Your task to perform on an android device: Search for vegetarian restaurants on Maps Image 0: 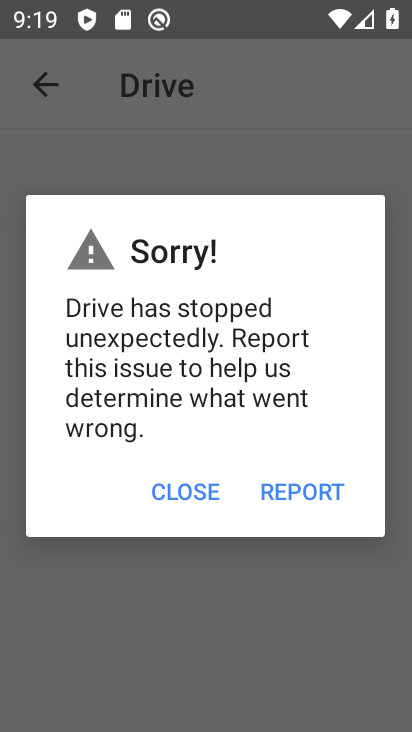
Step 0: press home button
Your task to perform on an android device: Search for vegetarian restaurants on Maps Image 1: 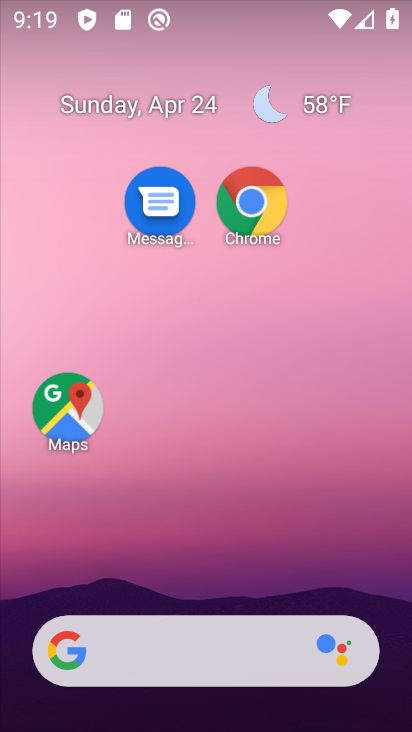
Step 1: drag from (199, 708) to (191, 196)
Your task to perform on an android device: Search for vegetarian restaurants on Maps Image 2: 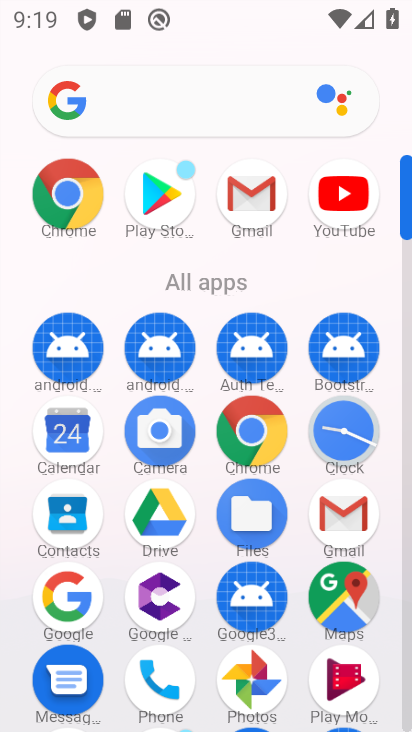
Step 2: click (345, 594)
Your task to perform on an android device: Search for vegetarian restaurants on Maps Image 3: 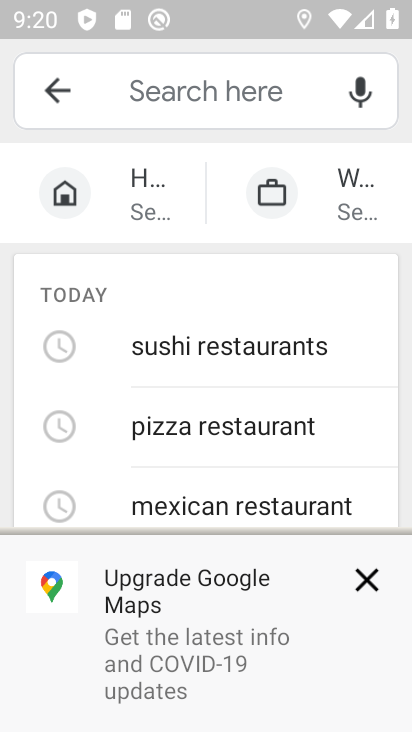
Step 3: click (175, 84)
Your task to perform on an android device: Search for vegetarian restaurants on Maps Image 4: 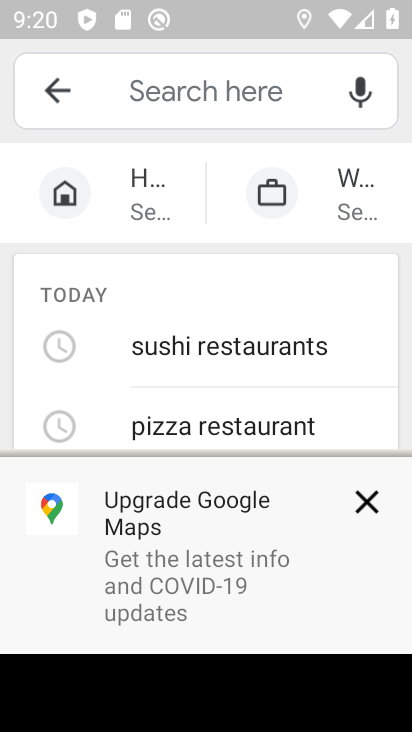
Step 4: type "vegetarian restaurants"
Your task to perform on an android device: Search for vegetarian restaurants on Maps Image 5: 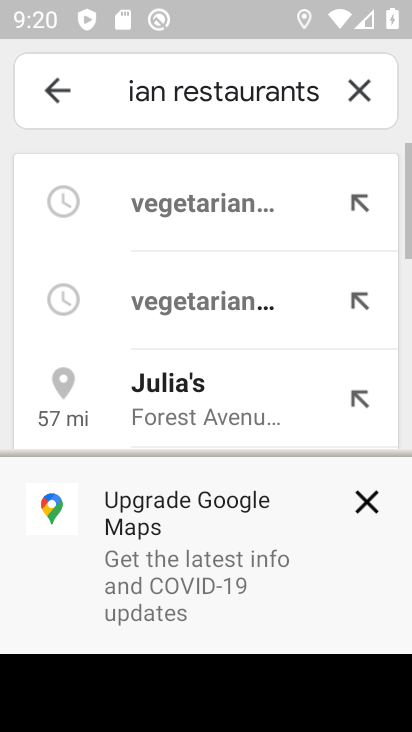
Step 5: click (184, 202)
Your task to perform on an android device: Search for vegetarian restaurants on Maps Image 6: 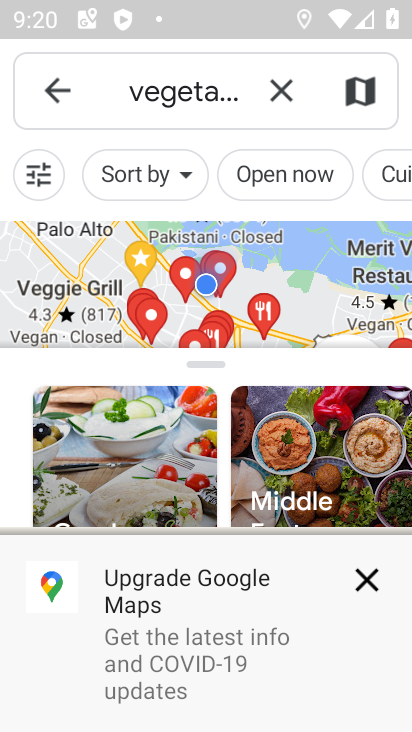
Step 6: task complete